Your task to perform on an android device: turn off notifications settings in the gmail app Image 0: 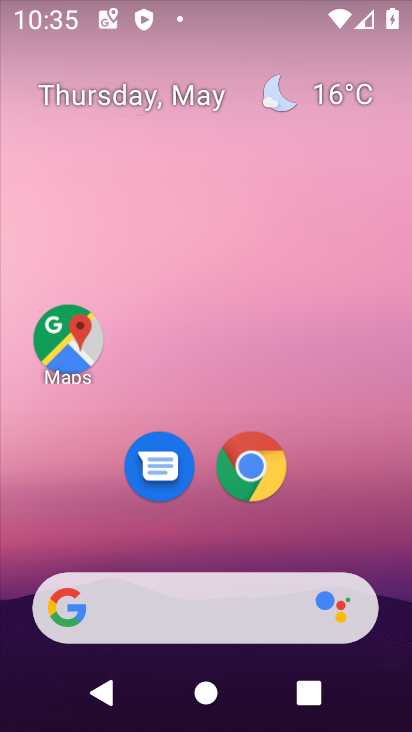
Step 0: drag from (326, 521) to (325, 269)
Your task to perform on an android device: turn off notifications settings in the gmail app Image 1: 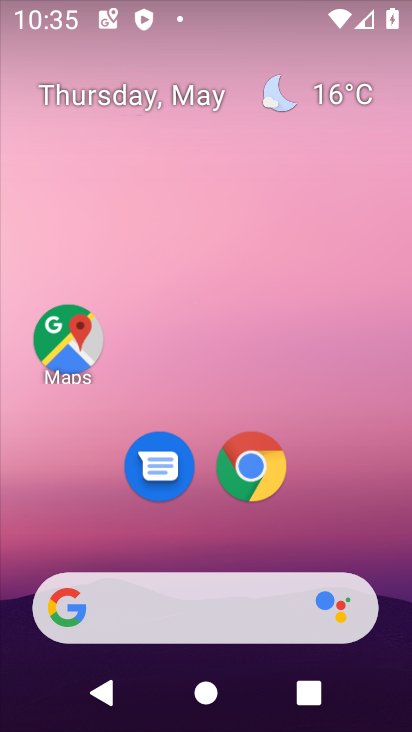
Step 1: drag from (285, 518) to (326, 154)
Your task to perform on an android device: turn off notifications settings in the gmail app Image 2: 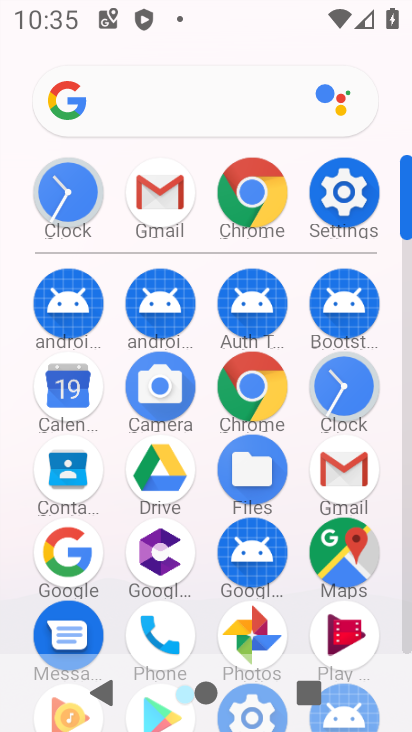
Step 2: click (358, 452)
Your task to perform on an android device: turn off notifications settings in the gmail app Image 3: 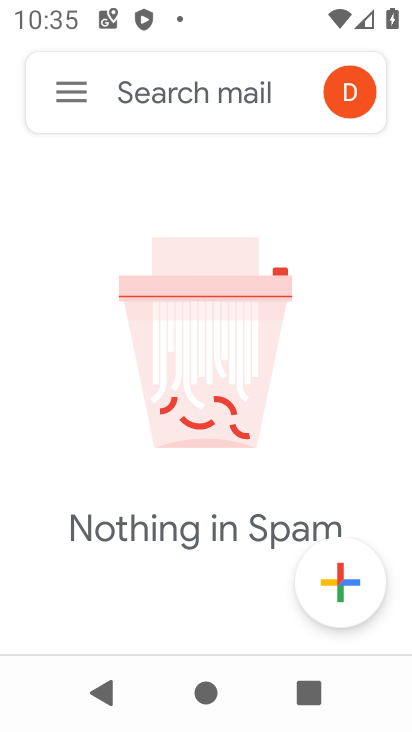
Step 3: click (64, 82)
Your task to perform on an android device: turn off notifications settings in the gmail app Image 4: 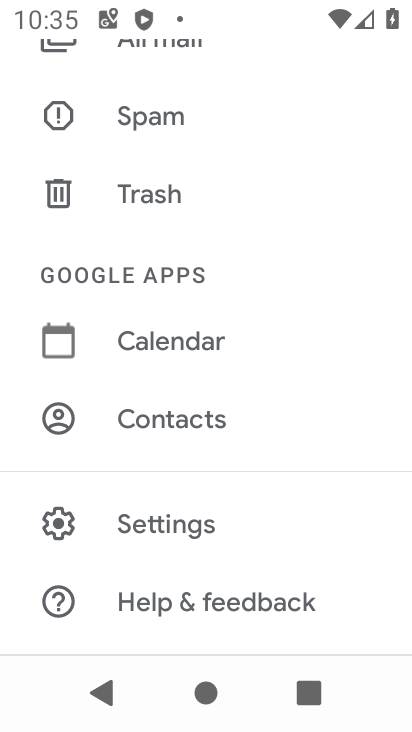
Step 4: click (163, 531)
Your task to perform on an android device: turn off notifications settings in the gmail app Image 5: 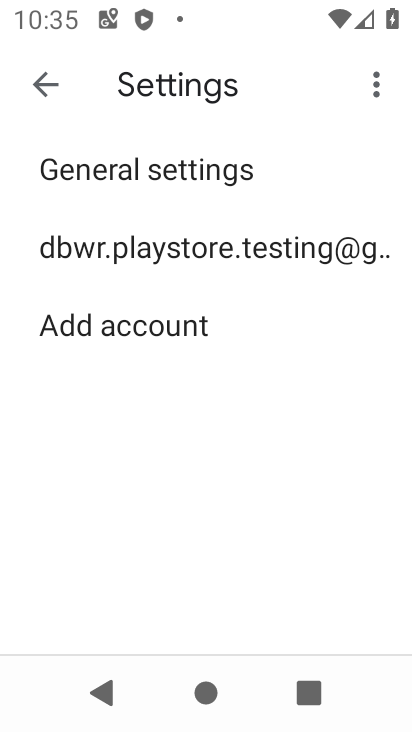
Step 5: click (173, 243)
Your task to perform on an android device: turn off notifications settings in the gmail app Image 6: 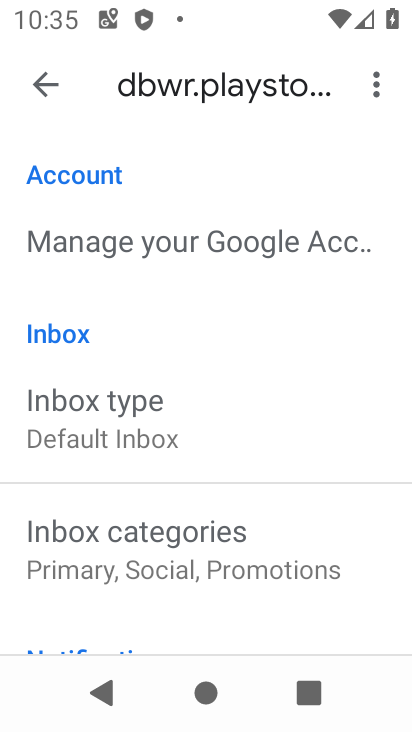
Step 6: drag from (199, 532) to (289, 158)
Your task to perform on an android device: turn off notifications settings in the gmail app Image 7: 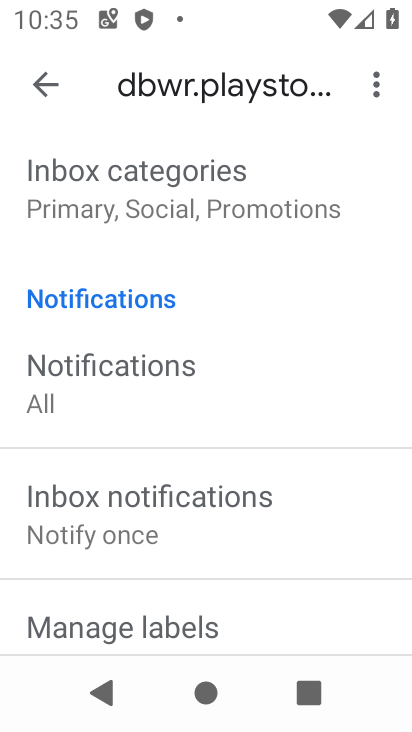
Step 7: click (168, 382)
Your task to perform on an android device: turn off notifications settings in the gmail app Image 8: 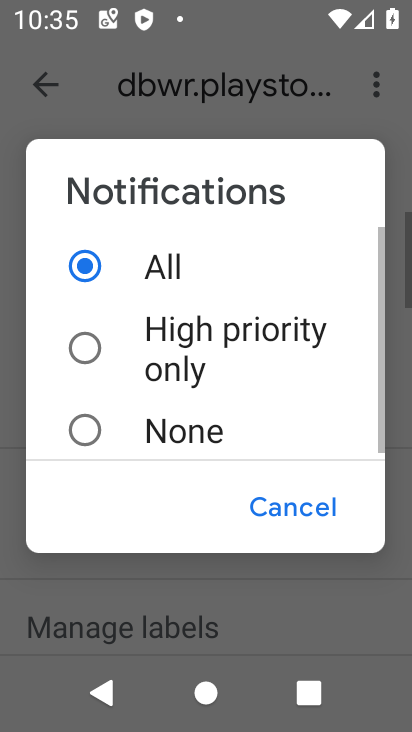
Step 8: click (144, 409)
Your task to perform on an android device: turn off notifications settings in the gmail app Image 9: 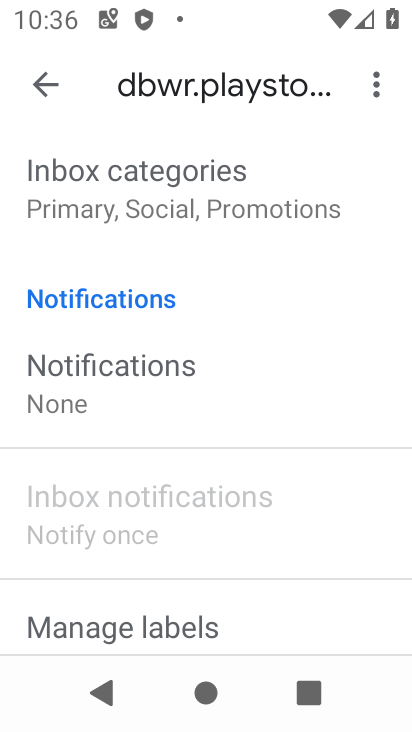
Step 9: task complete